Your task to perform on an android device: Open Google Maps Image 0: 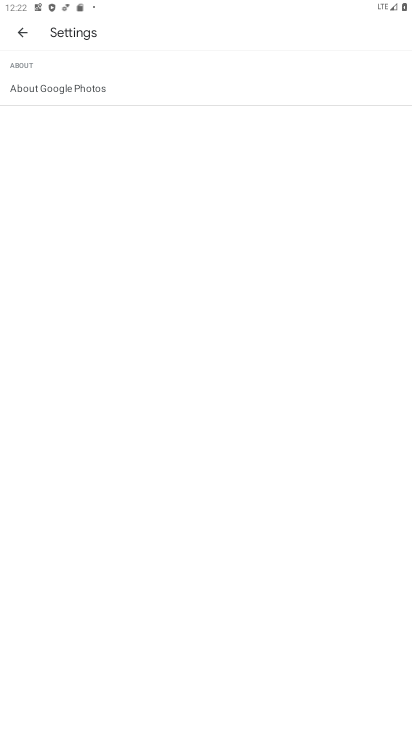
Step 0: press home button
Your task to perform on an android device: Open Google Maps Image 1: 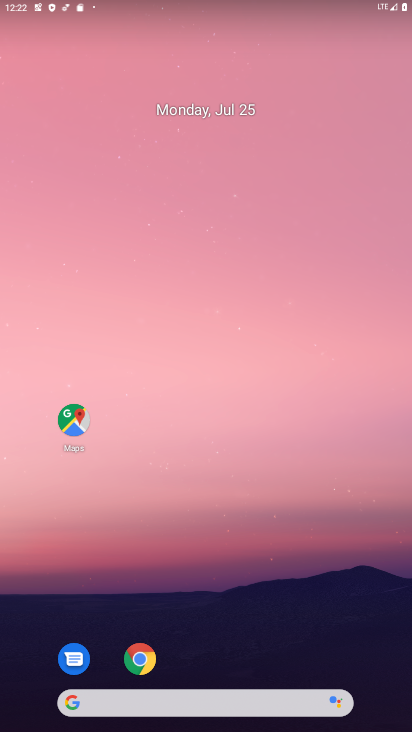
Step 1: drag from (46, 659) to (239, 0)
Your task to perform on an android device: Open Google Maps Image 2: 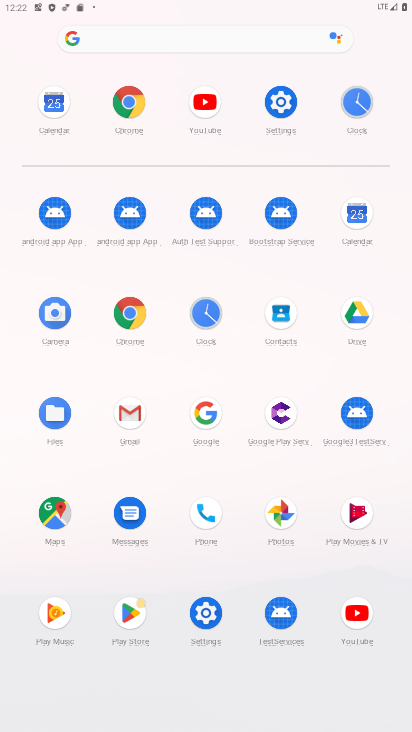
Step 2: click (52, 518)
Your task to perform on an android device: Open Google Maps Image 3: 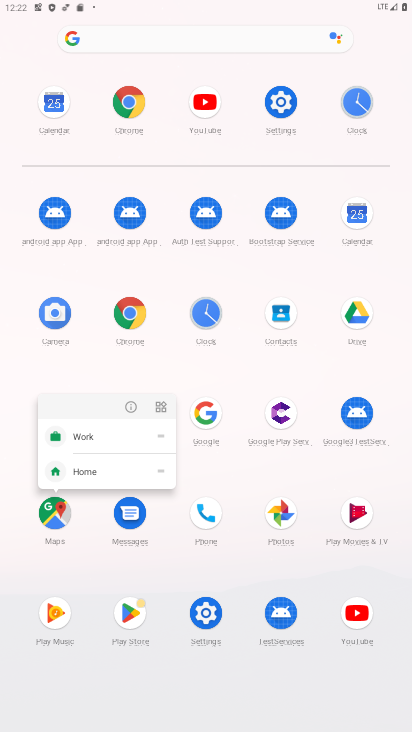
Step 3: click (53, 523)
Your task to perform on an android device: Open Google Maps Image 4: 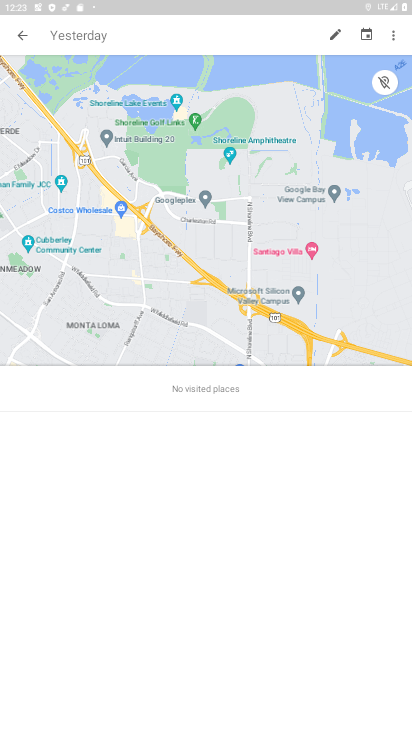
Step 4: task complete